Your task to perform on an android device: turn off data saver in the chrome app Image 0: 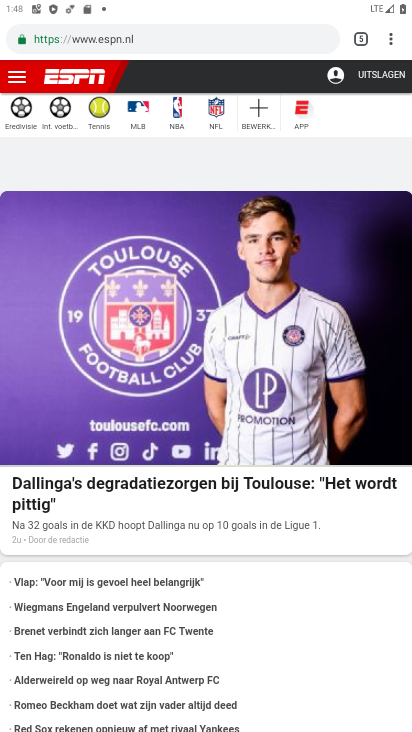
Step 0: press home button
Your task to perform on an android device: turn off data saver in the chrome app Image 1: 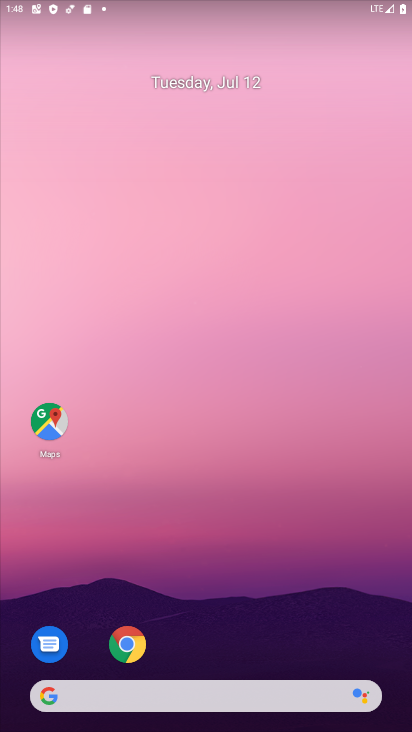
Step 1: drag from (196, 660) to (177, 71)
Your task to perform on an android device: turn off data saver in the chrome app Image 2: 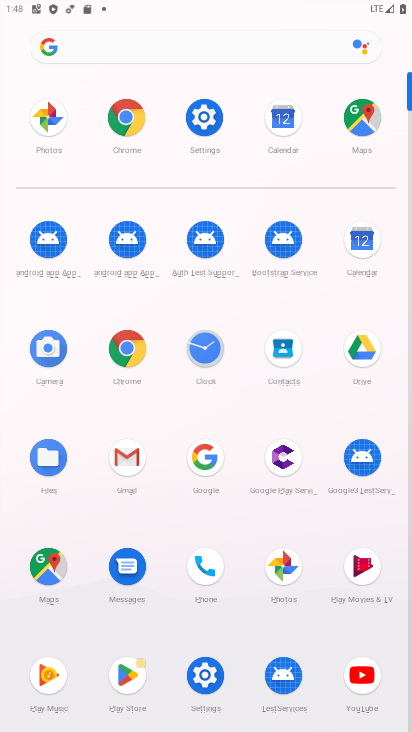
Step 2: click (121, 359)
Your task to perform on an android device: turn off data saver in the chrome app Image 3: 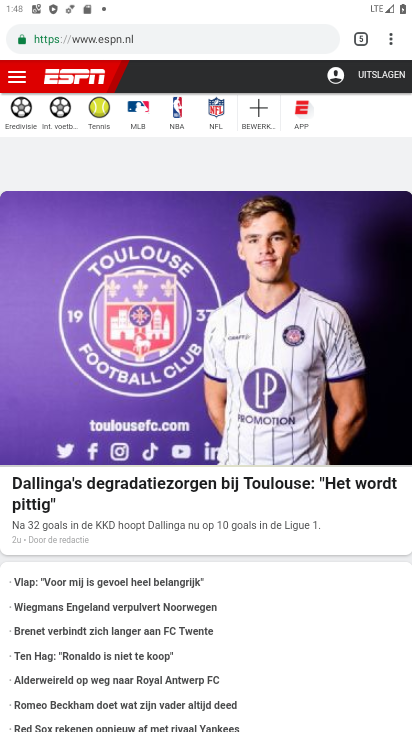
Step 3: click (383, 40)
Your task to perform on an android device: turn off data saver in the chrome app Image 4: 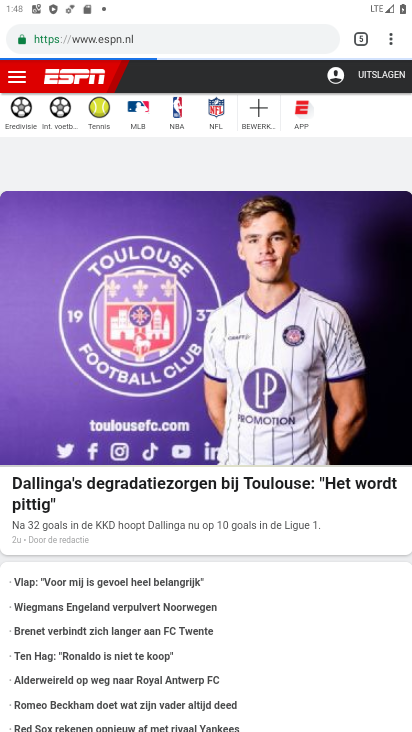
Step 4: click (392, 28)
Your task to perform on an android device: turn off data saver in the chrome app Image 5: 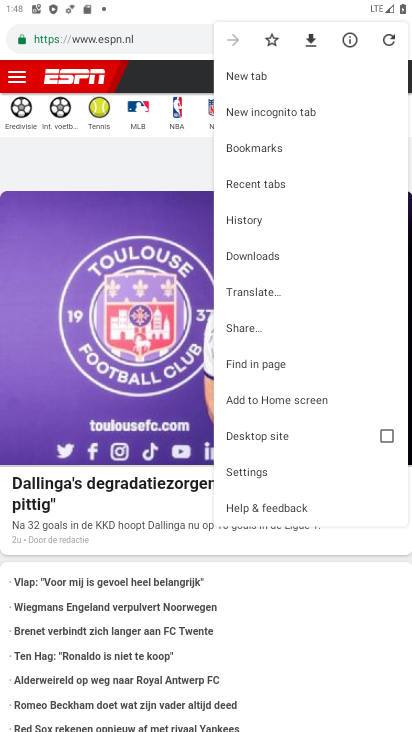
Step 5: click (259, 464)
Your task to perform on an android device: turn off data saver in the chrome app Image 6: 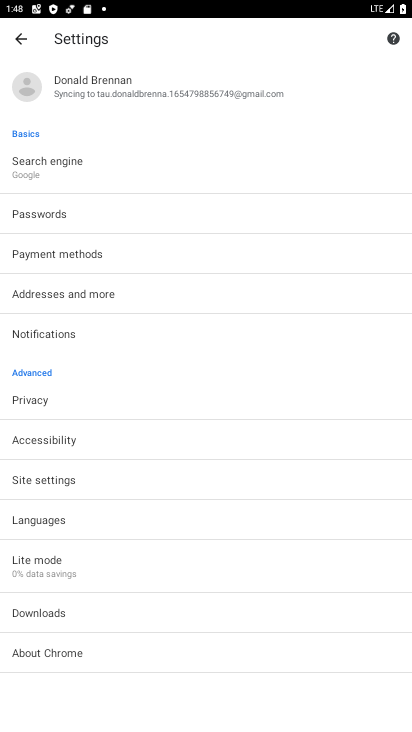
Step 6: click (71, 580)
Your task to perform on an android device: turn off data saver in the chrome app Image 7: 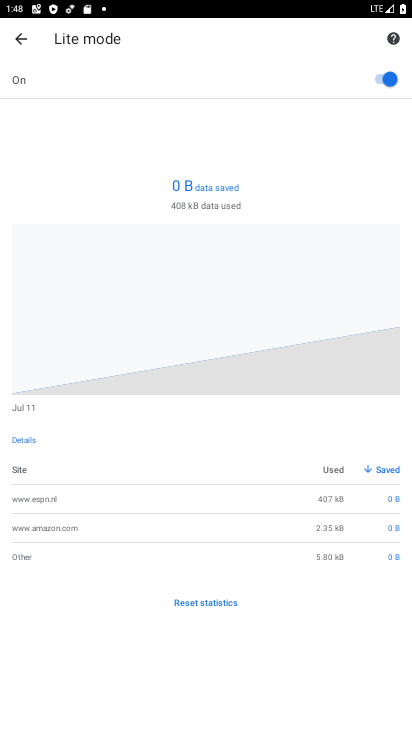
Step 7: click (380, 80)
Your task to perform on an android device: turn off data saver in the chrome app Image 8: 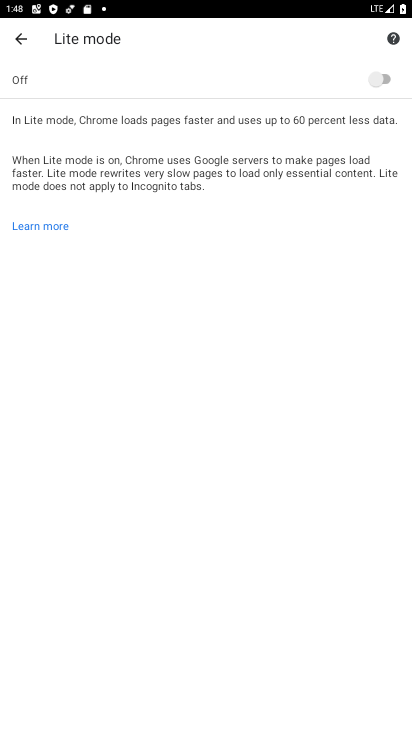
Step 8: task complete